Your task to perform on an android device: check android version Image 0: 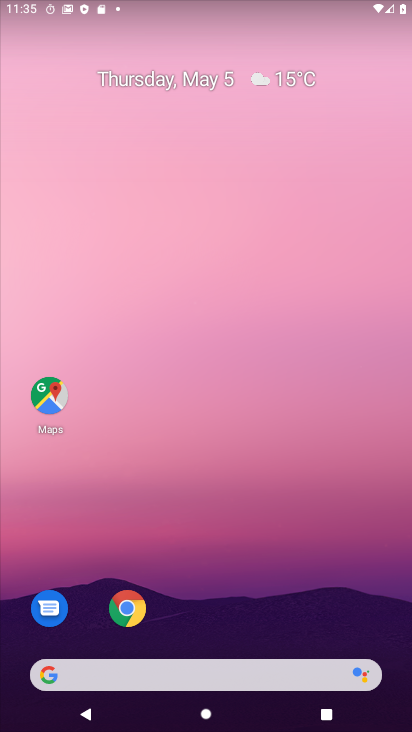
Step 0: drag from (272, 560) to (241, 60)
Your task to perform on an android device: check android version Image 1: 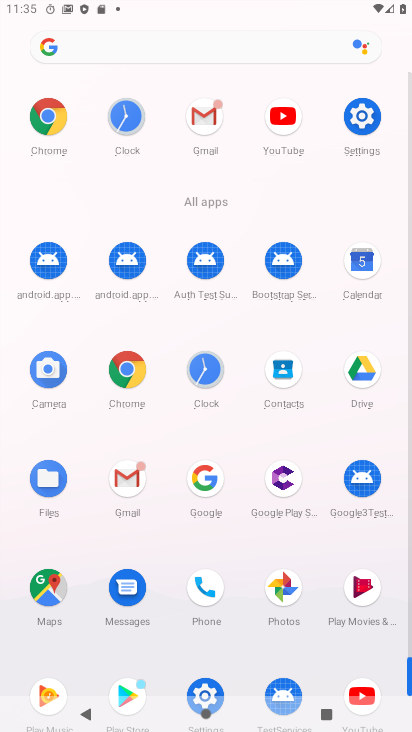
Step 1: click (363, 116)
Your task to perform on an android device: check android version Image 2: 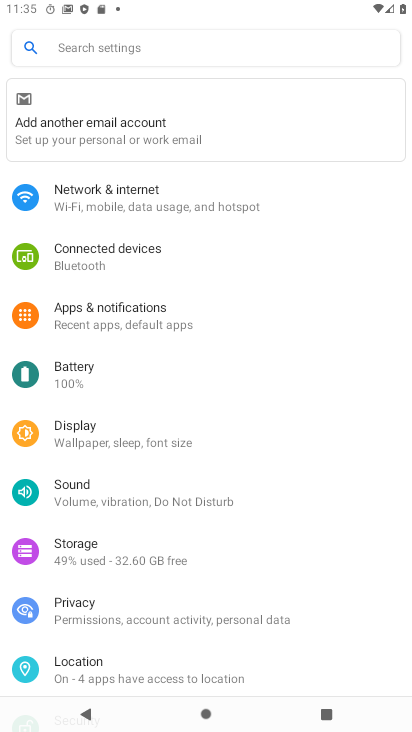
Step 2: drag from (119, 491) to (189, 379)
Your task to perform on an android device: check android version Image 3: 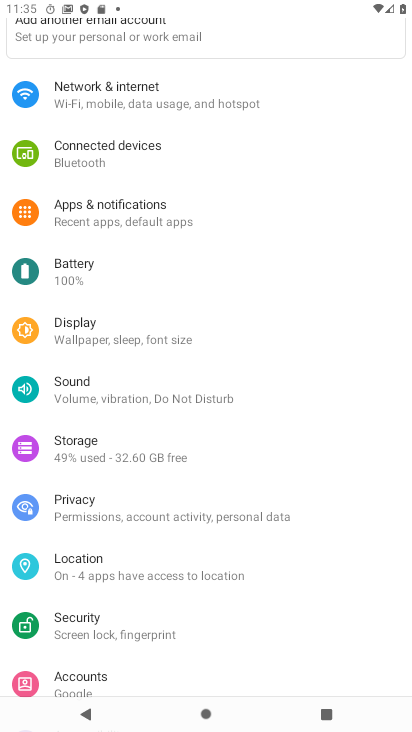
Step 3: drag from (125, 588) to (206, 461)
Your task to perform on an android device: check android version Image 4: 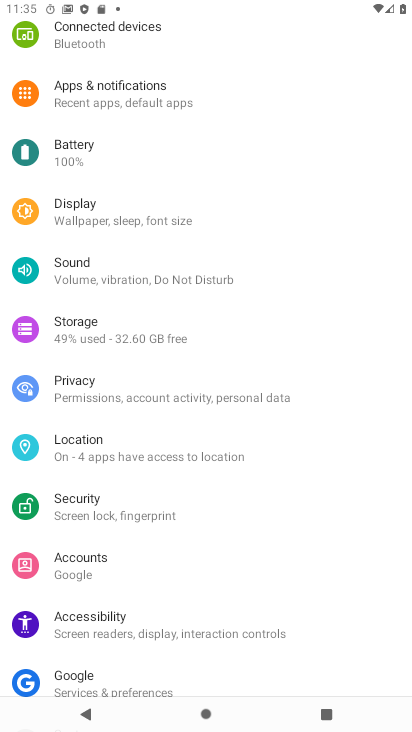
Step 4: drag from (143, 577) to (228, 453)
Your task to perform on an android device: check android version Image 5: 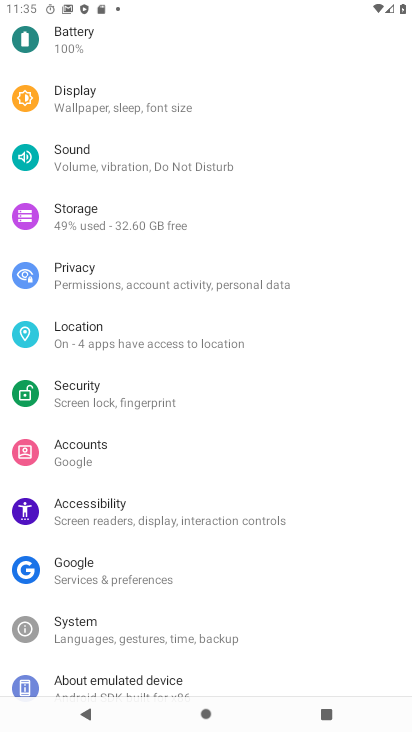
Step 5: drag from (158, 595) to (282, 422)
Your task to perform on an android device: check android version Image 6: 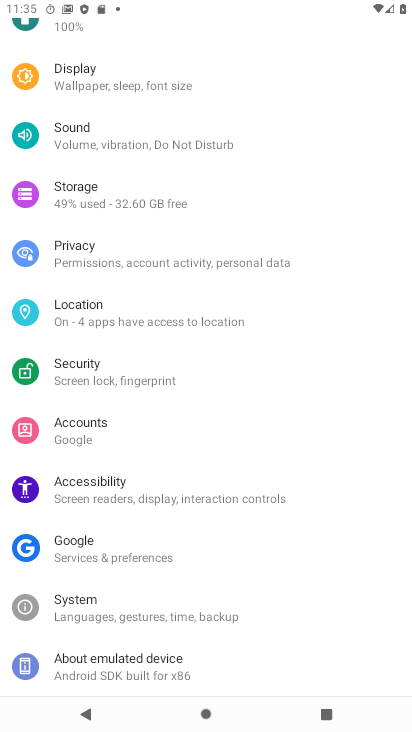
Step 6: click (134, 659)
Your task to perform on an android device: check android version Image 7: 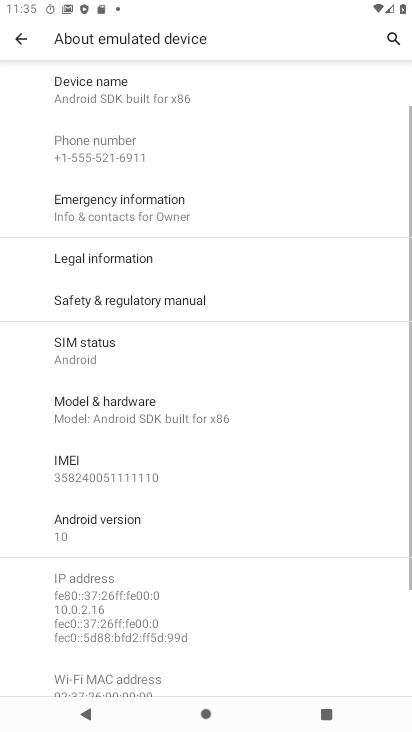
Step 7: click (103, 518)
Your task to perform on an android device: check android version Image 8: 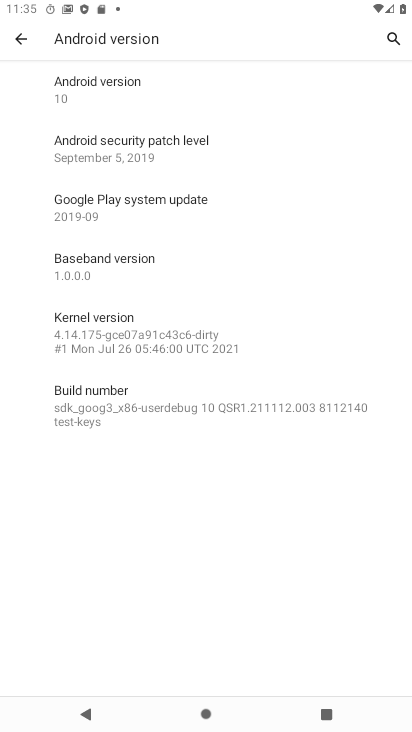
Step 8: task complete